Your task to perform on an android device: What is the news today? Image 0: 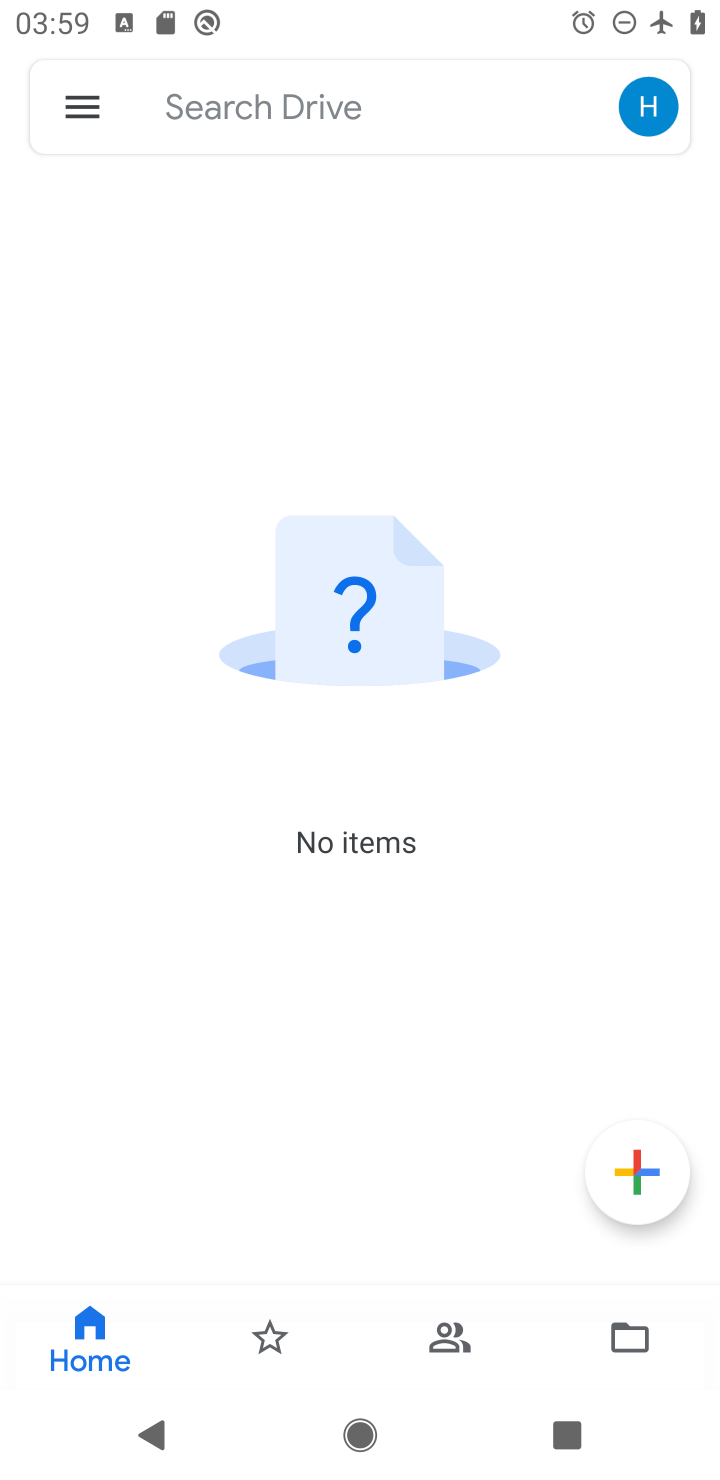
Step 0: press home button
Your task to perform on an android device: What is the news today? Image 1: 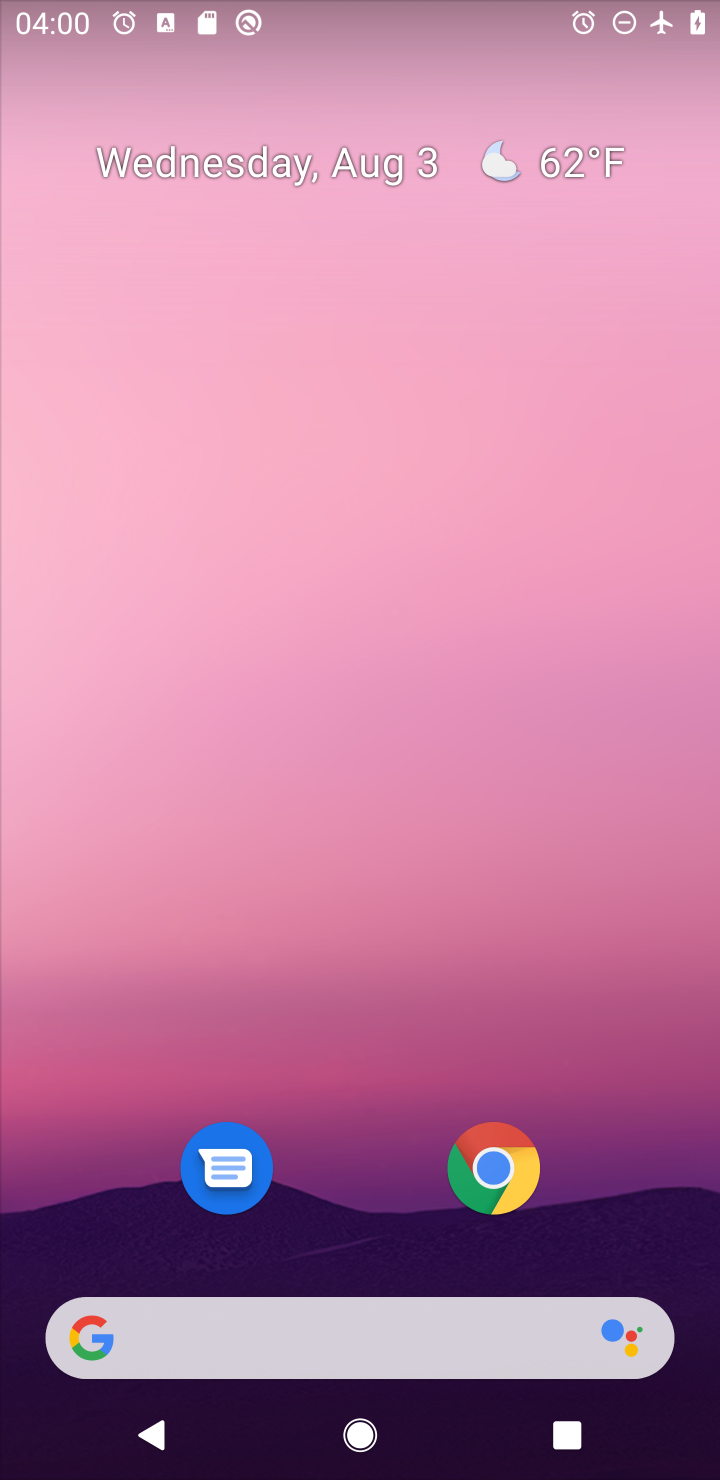
Step 1: task complete